Your task to perform on an android device: Go to sound settings Image 0: 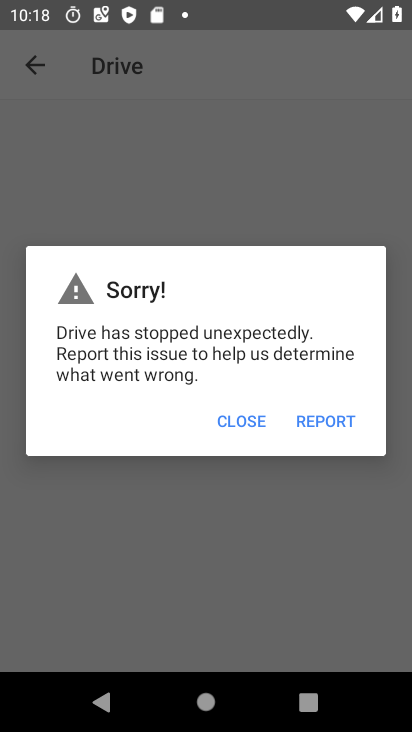
Step 0: press home button
Your task to perform on an android device: Go to sound settings Image 1: 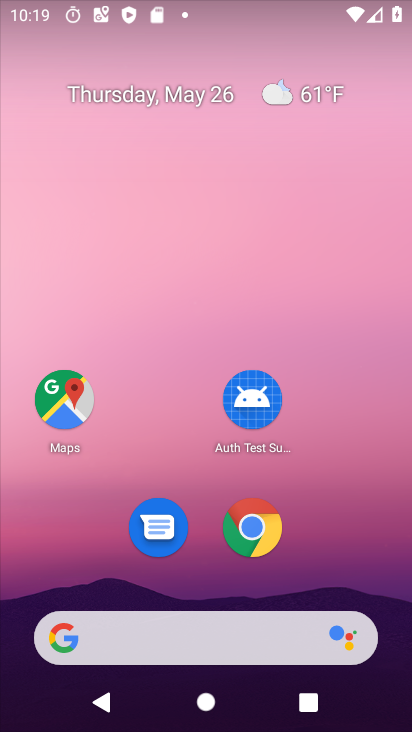
Step 1: drag from (342, 541) to (329, 5)
Your task to perform on an android device: Go to sound settings Image 2: 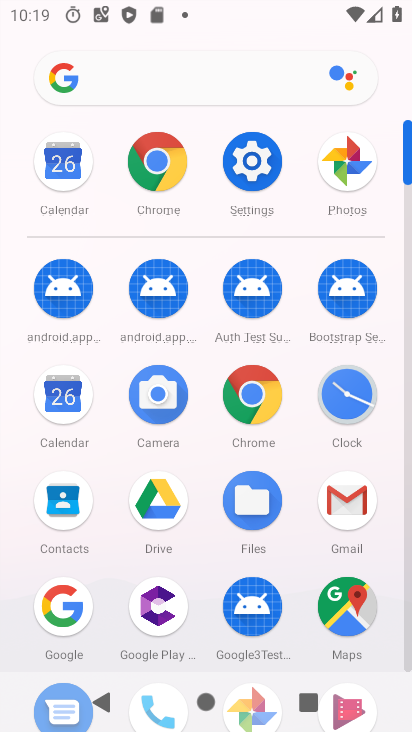
Step 2: click (250, 159)
Your task to perform on an android device: Go to sound settings Image 3: 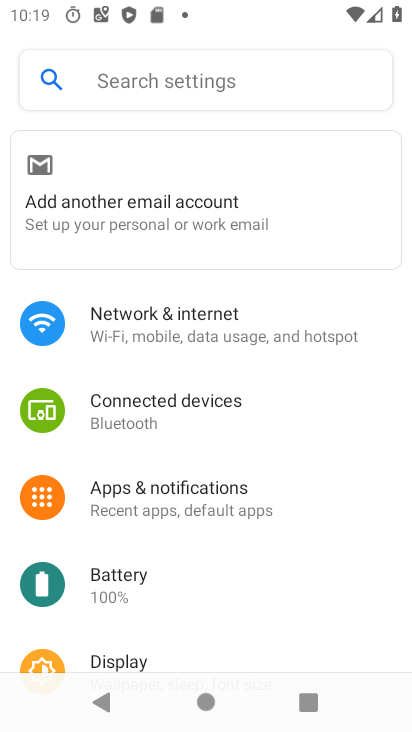
Step 3: drag from (159, 621) to (240, 251)
Your task to perform on an android device: Go to sound settings Image 4: 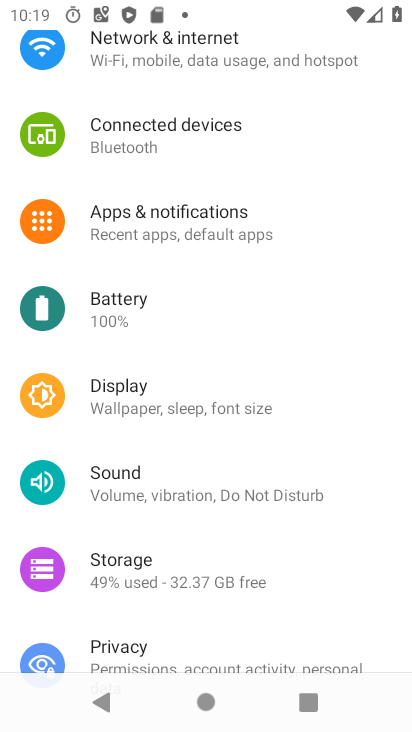
Step 4: click (153, 495)
Your task to perform on an android device: Go to sound settings Image 5: 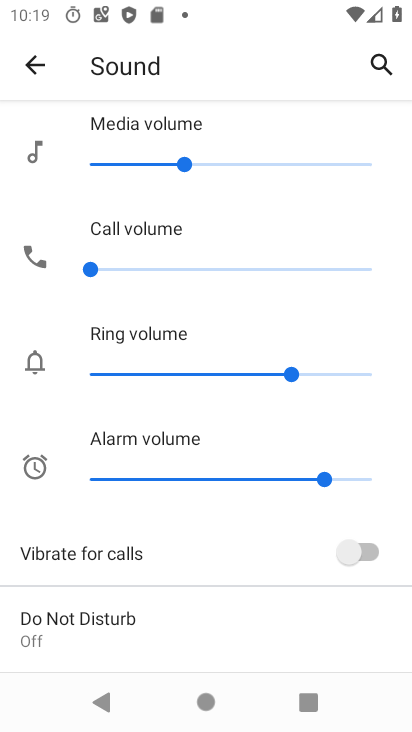
Step 5: task complete